Your task to perform on an android device: set the timer Image 0: 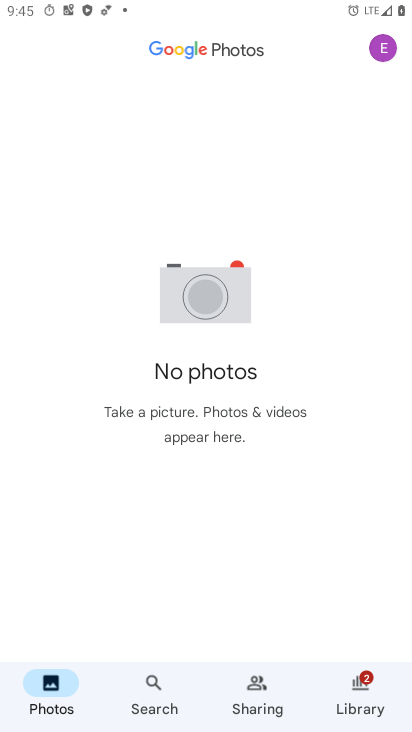
Step 0: press home button
Your task to perform on an android device: set the timer Image 1: 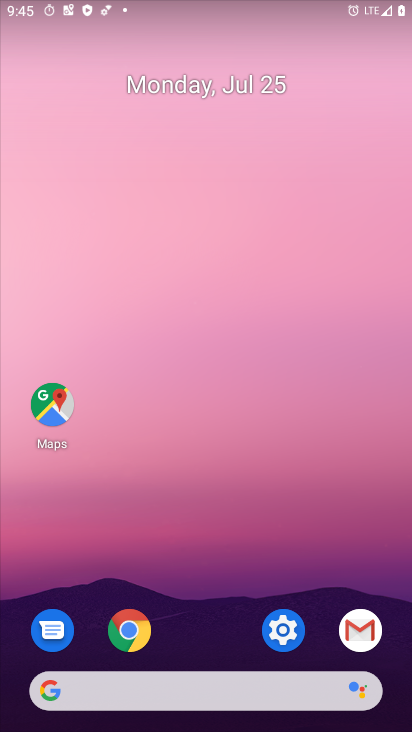
Step 1: drag from (257, 710) to (274, 191)
Your task to perform on an android device: set the timer Image 2: 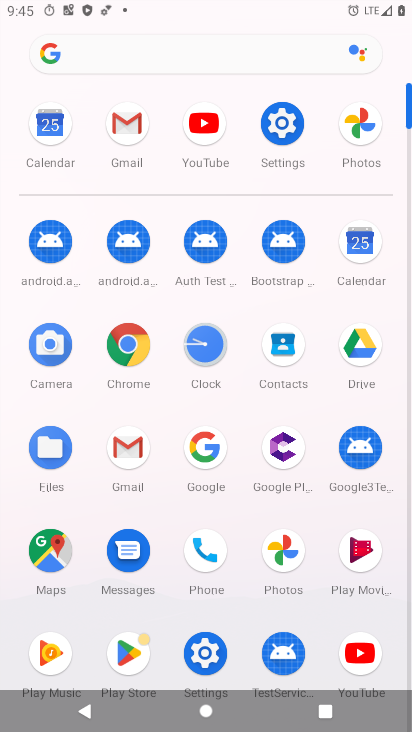
Step 2: click (202, 360)
Your task to perform on an android device: set the timer Image 3: 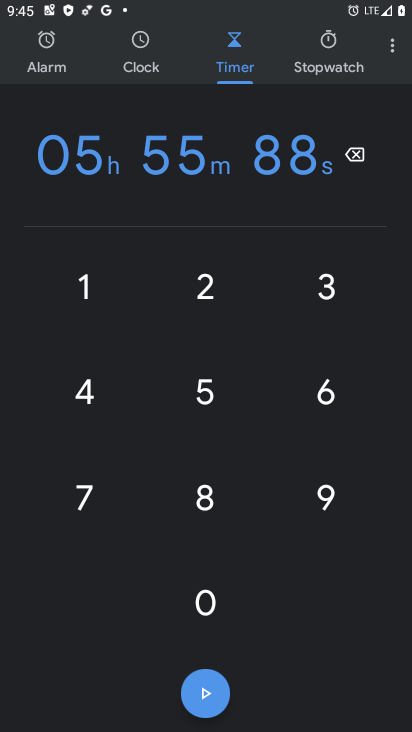
Step 3: click (196, 422)
Your task to perform on an android device: set the timer Image 4: 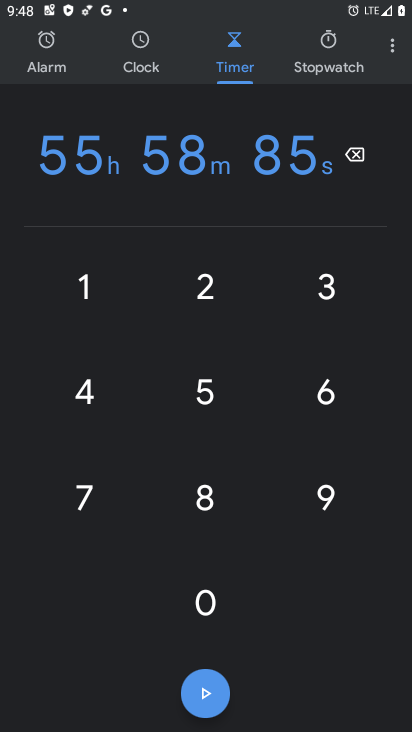
Step 4: task complete